Your task to perform on an android device: refresh tabs in the chrome app Image 0: 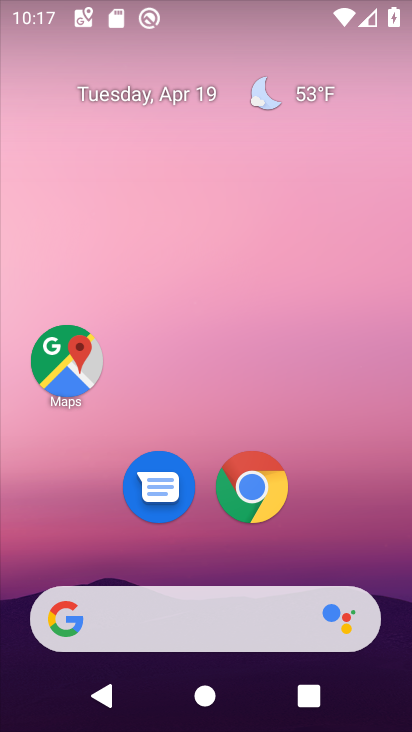
Step 0: drag from (364, 472) to (314, 6)
Your task to perform on an android device: refresh tabs in the chrome app Image 1: 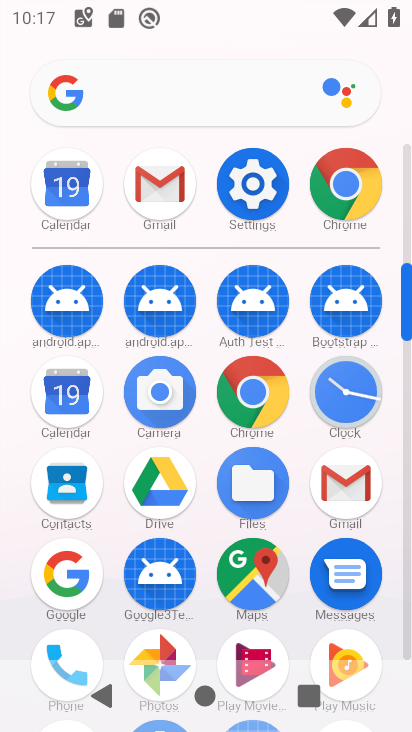
Step 1: drag from (7, 561) to (21, 233)
Your task to perform on an android device: refresh tabs in the chrome app Image 2: 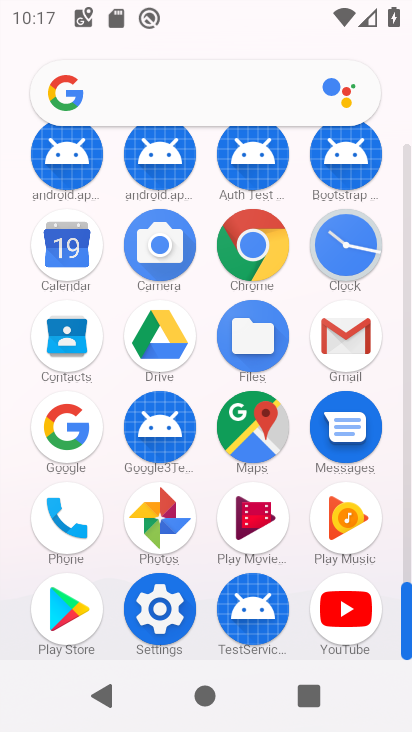
Step 2: click (251, 236)
Your task to perform on an android device: refresh tabs in the chrome app Image 3: 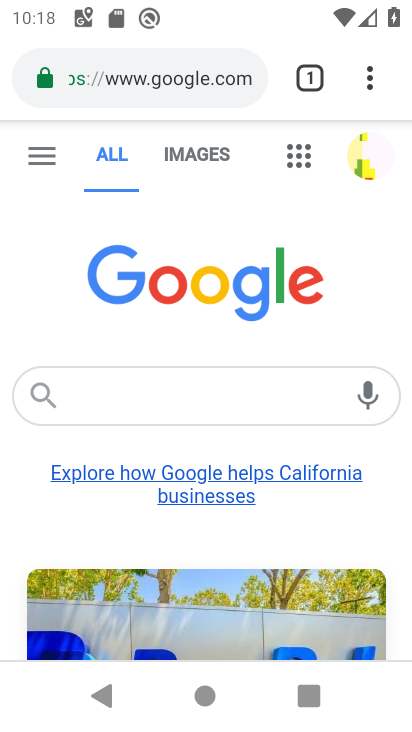
Step 3: click (372, 76)
Your task to perform on an android device: refresh tabs in the chrome app Image 4: 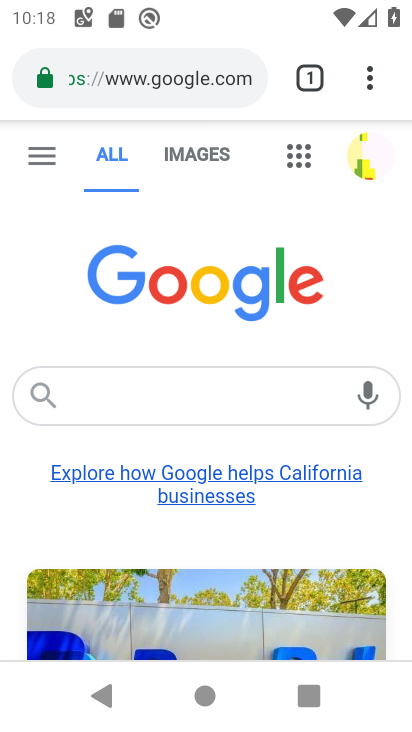
Step 4: task complete